Your task to perform on an android device: Open the stopwatch Image 0: 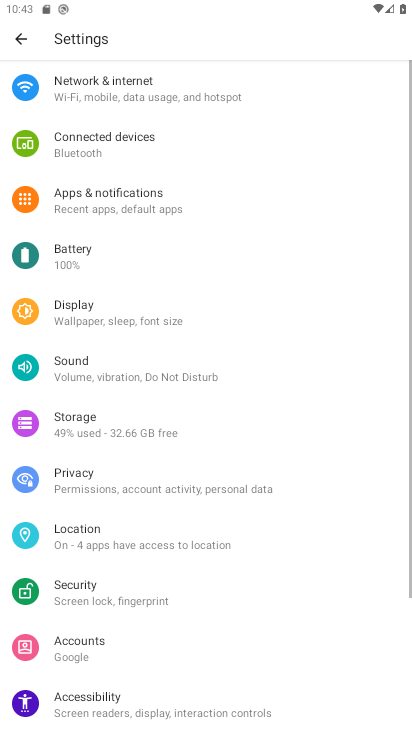
Step 0: press home button
Your task to perform on an android device: Open the stopwatch Image 1: 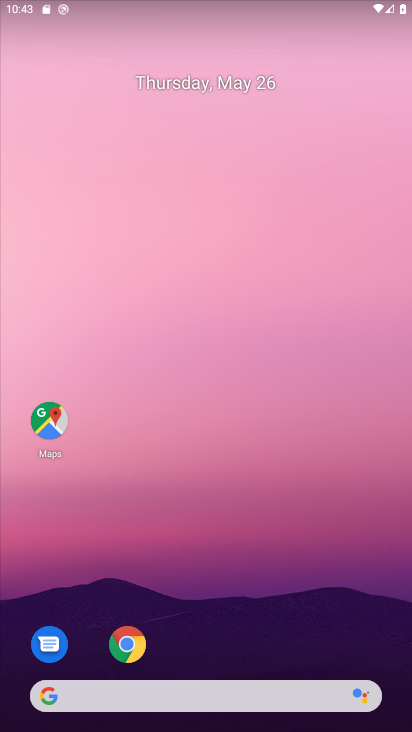
Step 1: drag from (355, 630) to (358, 192)
Your task to perform on an android device: Open the stopwatch Image 2: 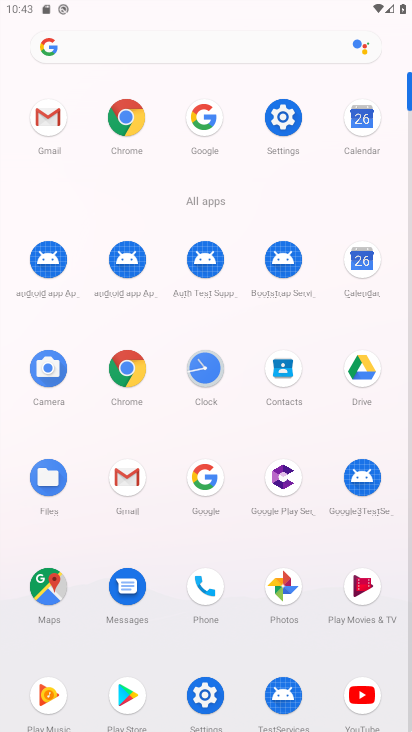
Step 2: click (205, 391)
Your task to perform on an android device: Open the stopwatch Image 3: 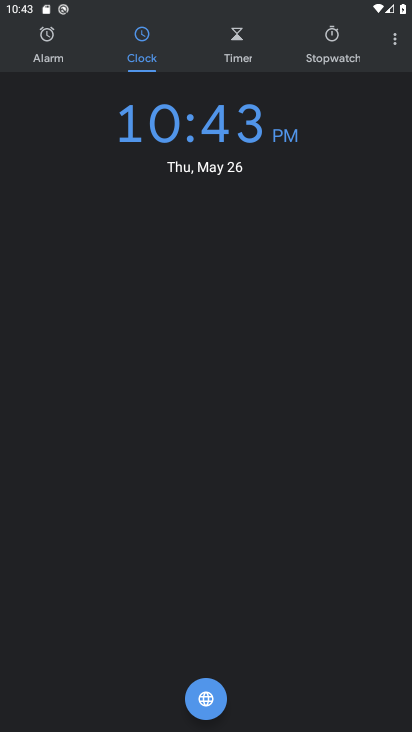
Step 3: click (338, 56)
Your task to perform on an android device: Open the stopwatch Image 4: 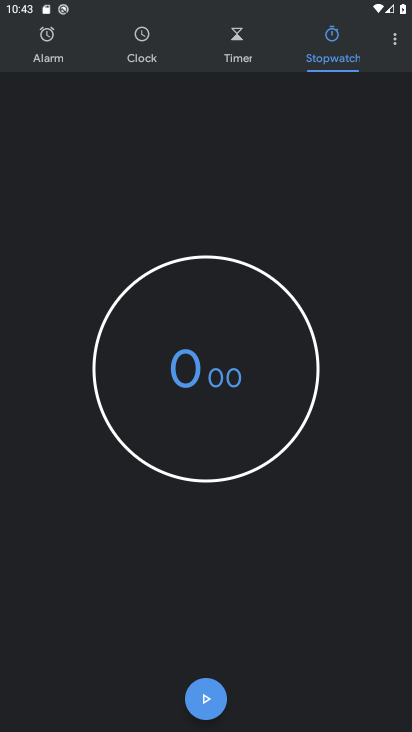
Step 4: task complete